Your task to perform on an android device: Turn on the flashlight Image 0: 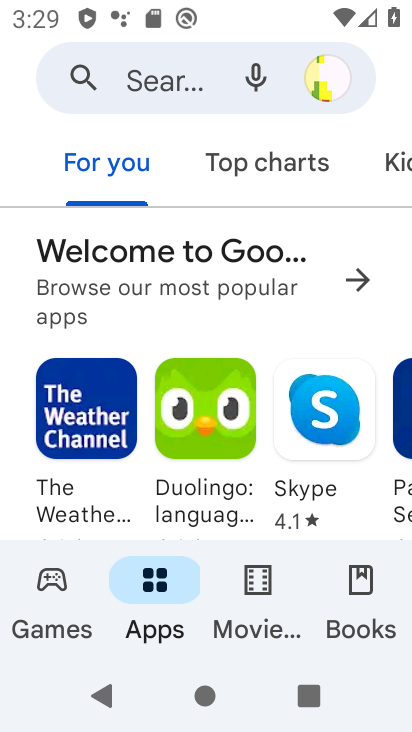
Step 0: drag from (186, 581) to (199, 135)
Your task to perform on an android device: Turn on the flashlight Image 1: 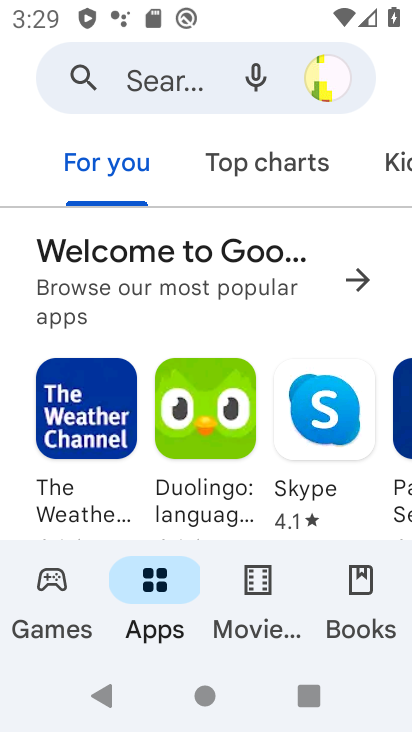
Step 1: press home button
Your task to perform on an android device: Turn on the flashlight Image 2: 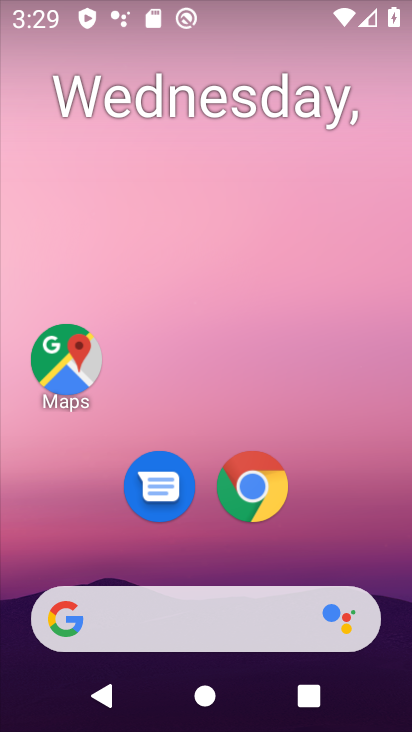
Step 2: drag from (239, 3) to (248, 433)
Your task to perform on an android device: Turn on the flashlight Image 3: 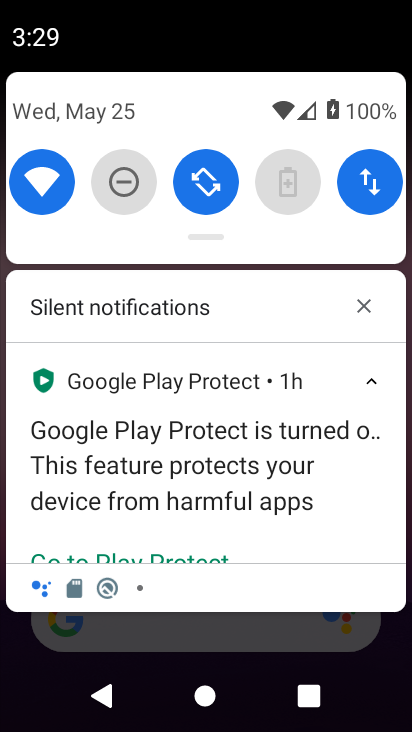
Step 3: drag from (260, 149) to (244, 503)
Your task to perform on an android device: Turn on the flashlight Image 4: 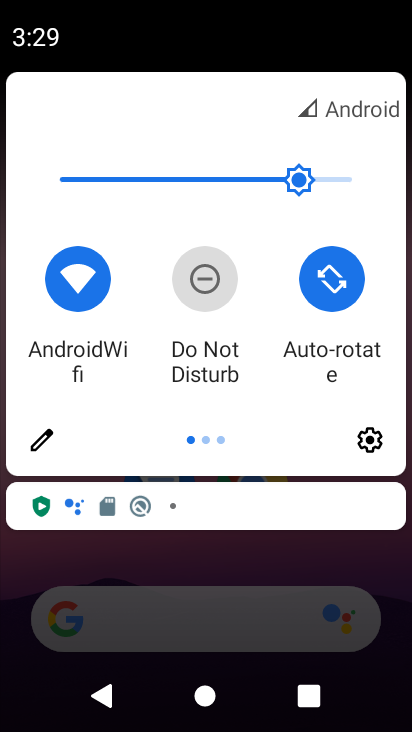
Step 4: drag from (374, 343) to (0, 359)
Your task to perform on an android device: Turn on the flashlight Image 5: 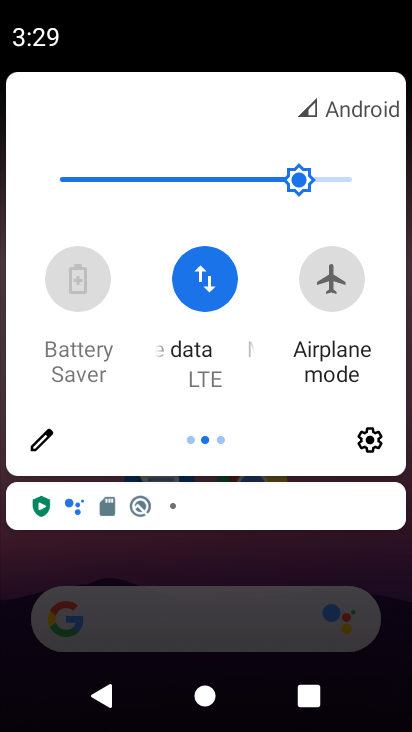
Step 5: drag from (358, 347) to (6, 372)
Your task to perform on an android device: Turn on the flashlight Image 6: 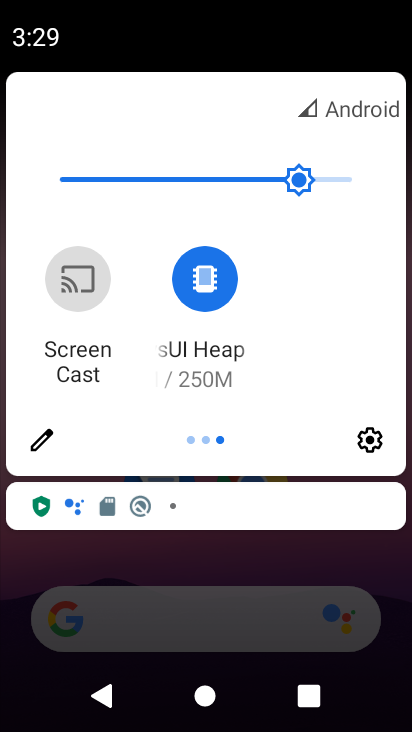
Step 6: click (38, 447)
Your task to perform on an android device: Turn on the flashlight Image 7: 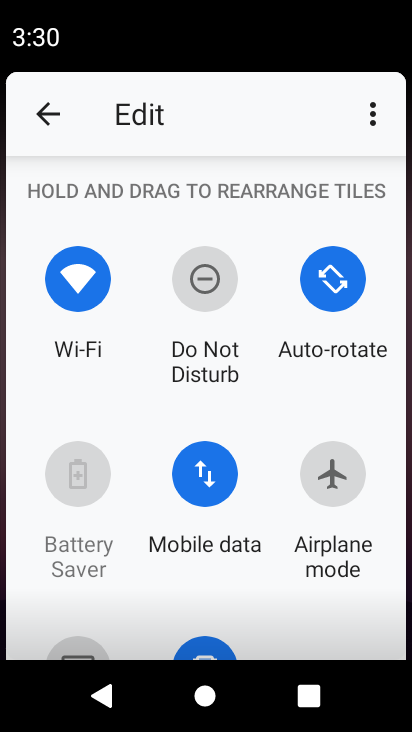
Step 7: task complete